Your task to perform on an android device: turn on javascript in the chrome app Image 0: 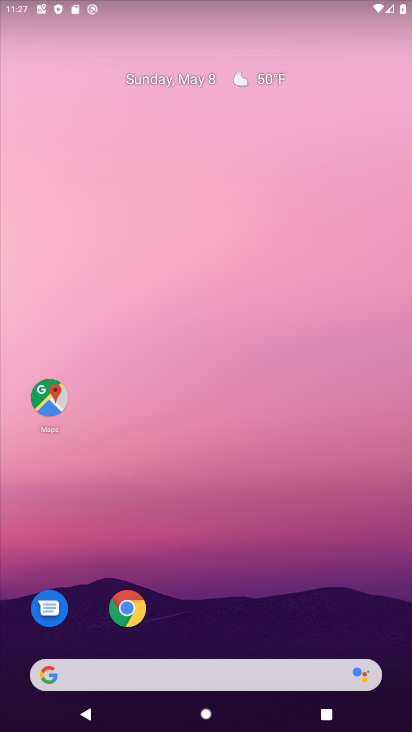
Step 0: drag from (332, 572) to (366, 292)
Your task to perform on an android device: turn on javascript in the chrome app Image 1: 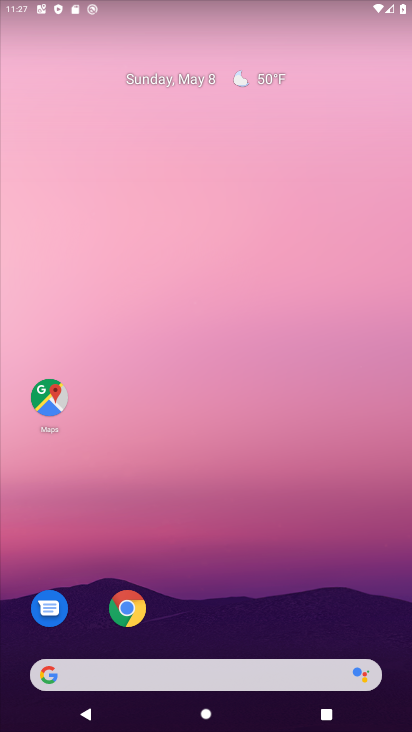
Step 1: drag from (298, 567) to (259, 162)
Your task to perform on an android device: turn on javascript in the chrome app Image 2: 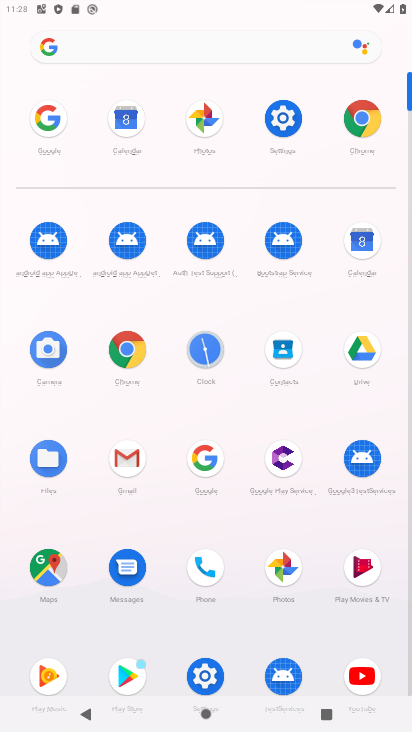
Step 2: click (369, 117)
Your task to perform on an android device: turn on javascript in the chrome app Image 3: 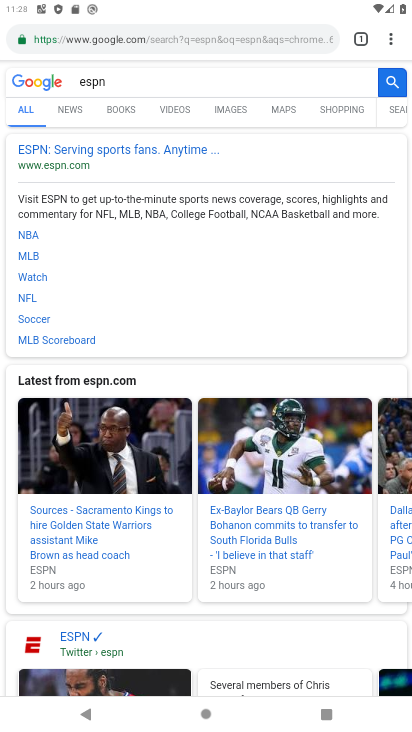
Step 3: drag from (383, 40) to (245, 443)
Your task to perform on an android device: turn on javascript in the chrome app Image 4: 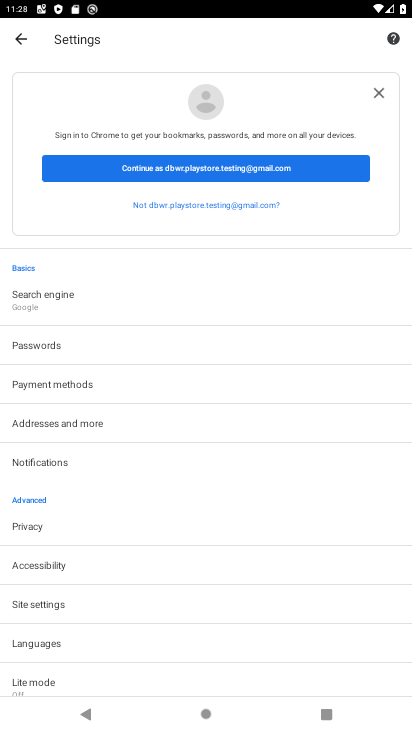
Step 4: drag from (121, 630) to (204, 177)
Your task to perform on an android device: turn on javascript in the chrome app Image 5: 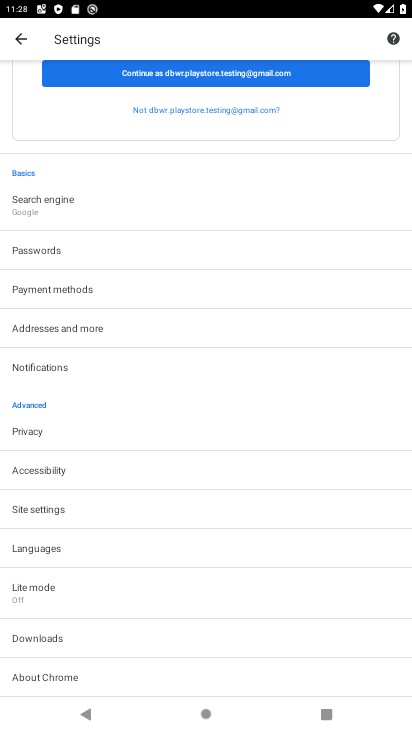
Step 5: click (67, 511)
Your task to perform on an android device: turn on javascript in the chrome app Image 6: 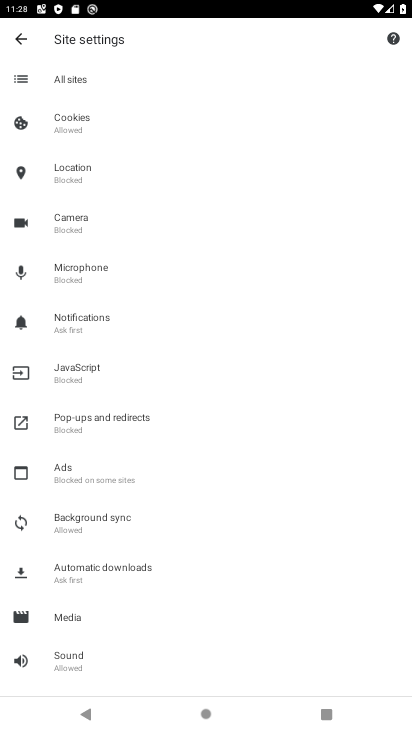
Step 6: click (119, 368)
Your task to perform on an android device: turn on javascript in the chrome app Image 7: 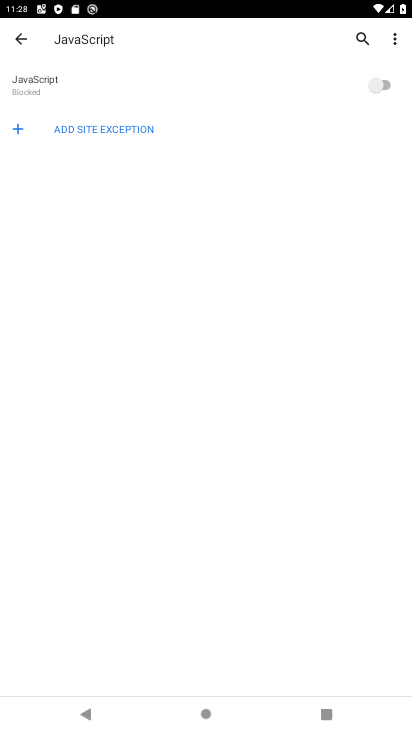
Step 7: click (376, 84)
Your task to perform on an android device: turn on javascript in the chrome app Image 8: 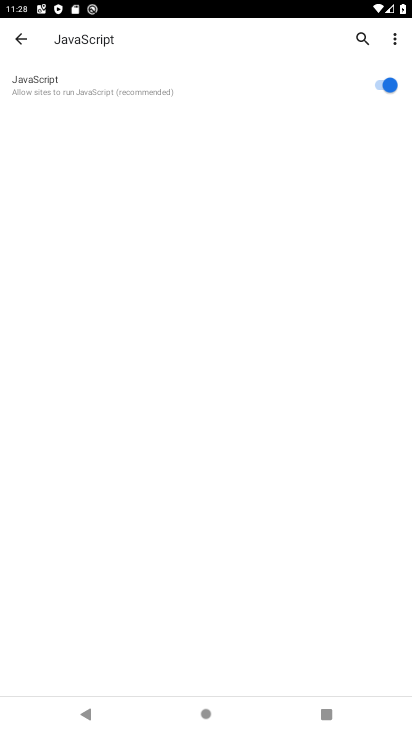
Step 8: task complete